Your task to perform on an android device: delete browsing data in the chrome app Image 0: 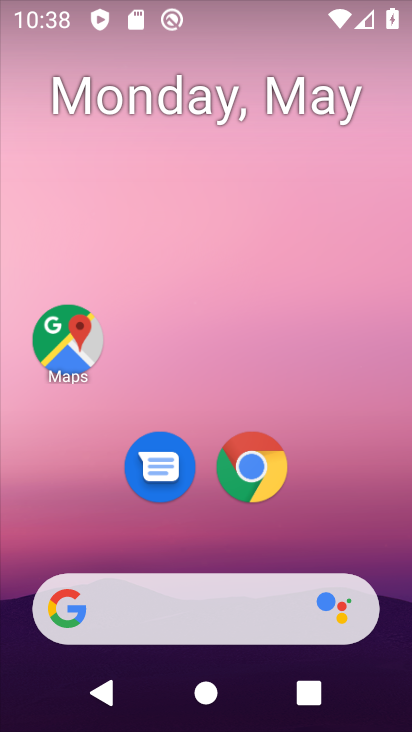
Step 0: click (254, 474)
Your task to perform on an android device: delete browsing data in the chrome app Image 1: 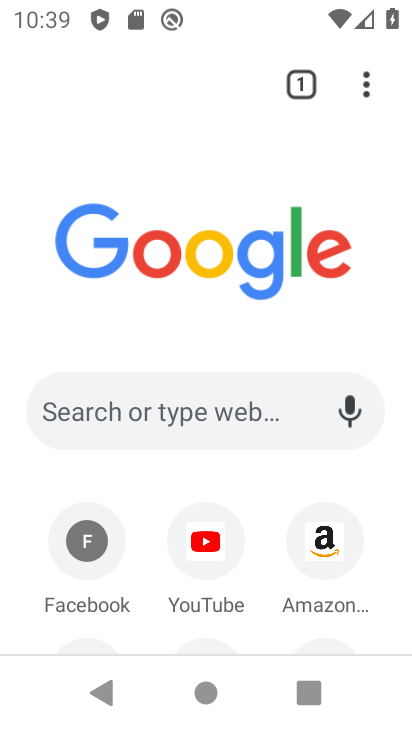
Step 1: click (366, 101)
Your task to perform on an android device: delete browsing data in the chrome app Image 2: 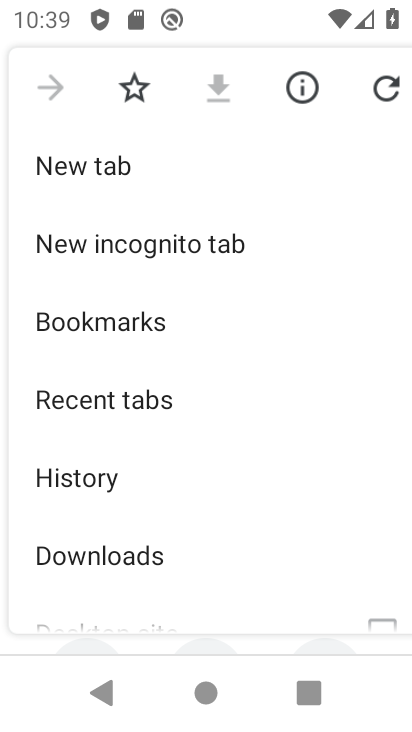
Step 2: click (95, 485)
Your task to perform on an android device: delete browsing data in the chrome app Image 3: 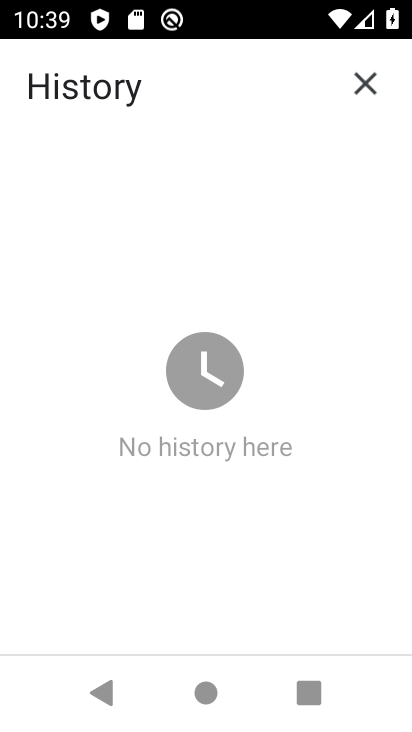
Step 3: task complete